Your task to perform on an android device: delete browsing data in the chrome app Image 0: 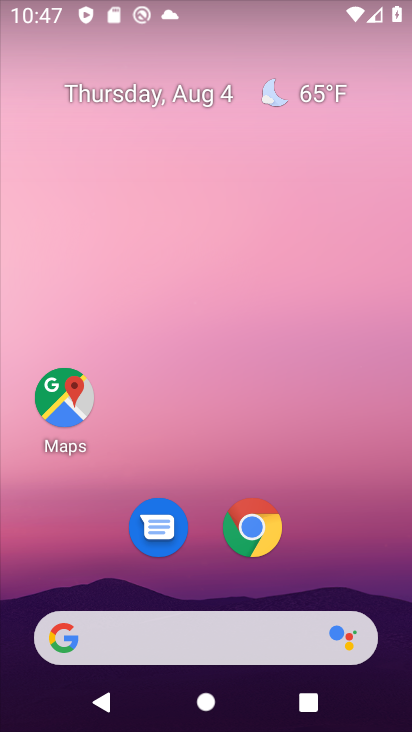
Step 0: drag from (166, 702) to (177, 370)
Your task to perform on an android device: delete browsing data in the chrome app Image 1: 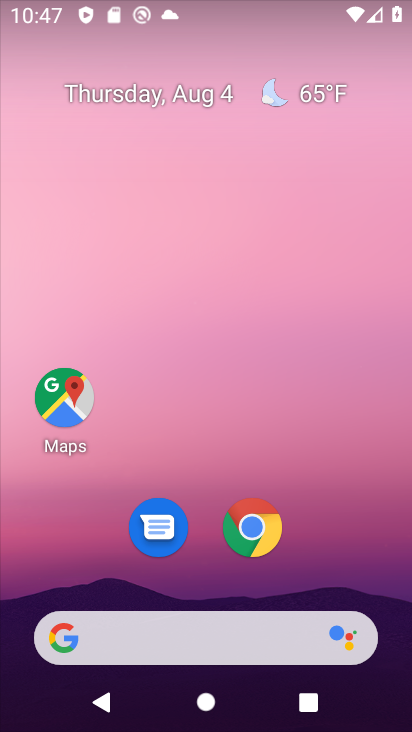
Step 1: click (258, 540)
Your task to perform on an android device: delete browsing data in the chrome app Image 2: 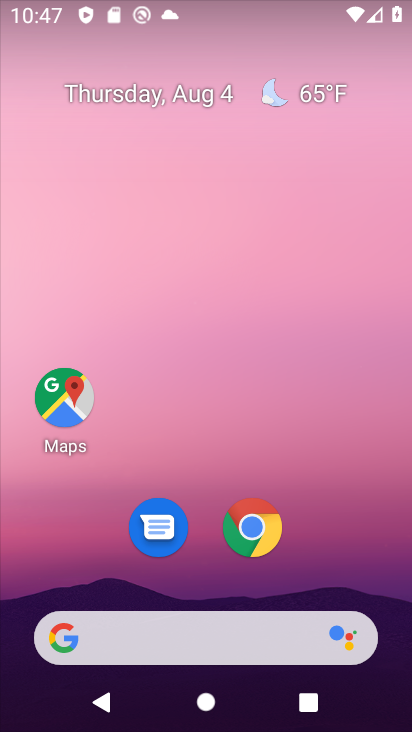
Step 2: click (258, 540)
Your task to perform on an android device: delete browsing data in the chrome app Image 3: 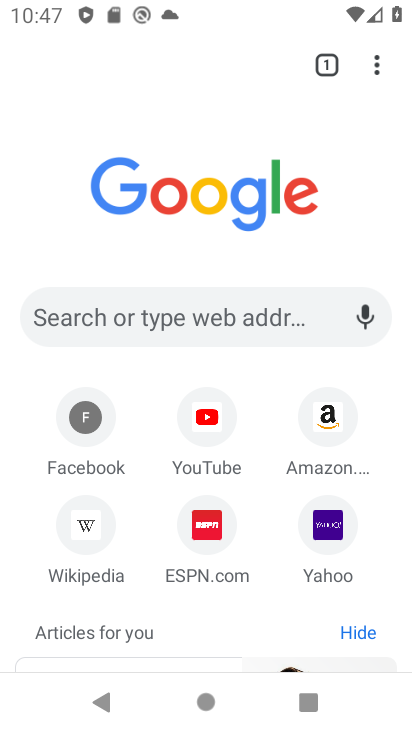
Step 3: click (379, 62)
Your task to perform on an android device: delete browsing data in the chrome app Image 4: 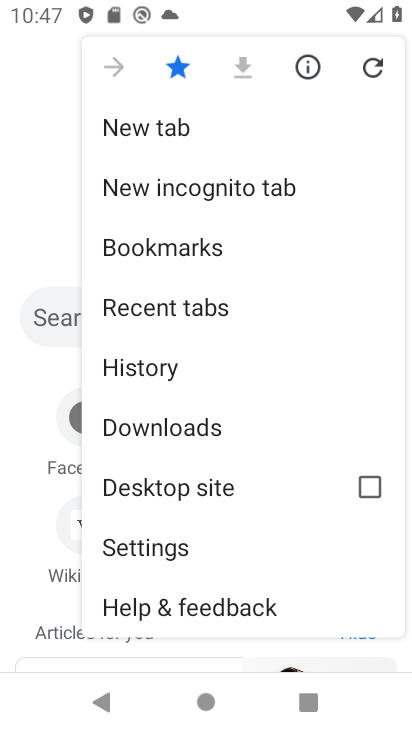
Step 4: click (168, 367)
Your task to perform on an android device: delete browsing data in the chrome app Image 5: 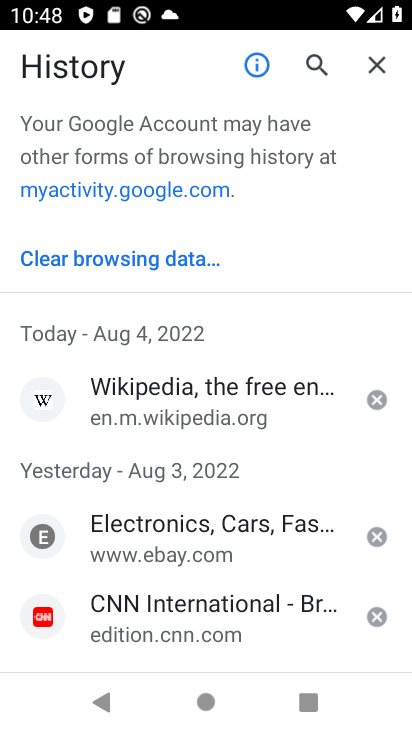
Step 5: click (48, 252)
Your task to perform on an android device: delete browsing data in the chrome app Image 6: 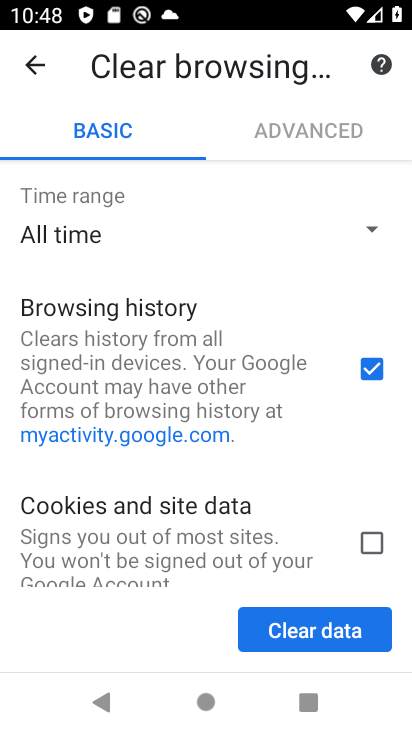
Step 6: click (291, 624)
Your task to perform on an android device: delete browsing data in the chrome app Image 7: 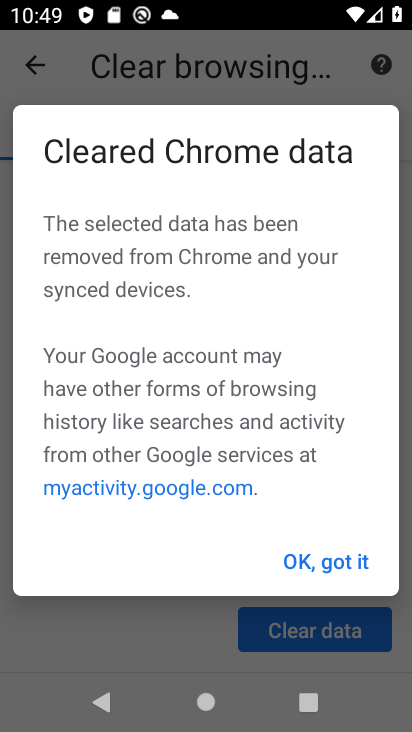
Step 7: click (345, 586)
Your task to perform on an android device: delete browsing data in the chrome app Image 8: 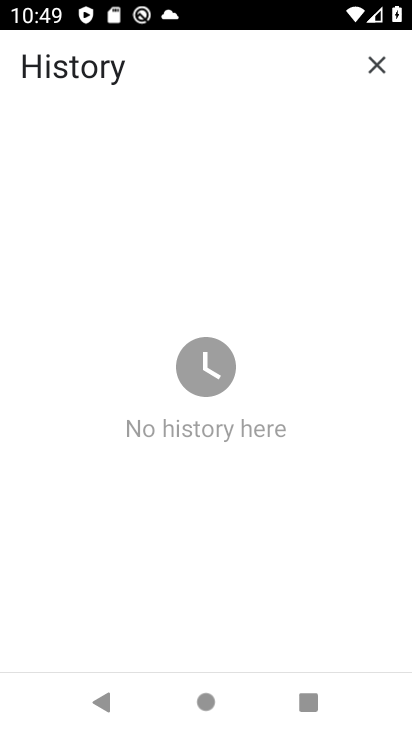
Step 8: task complete